Your task to perform on an android device: open wifi settings Image 0: 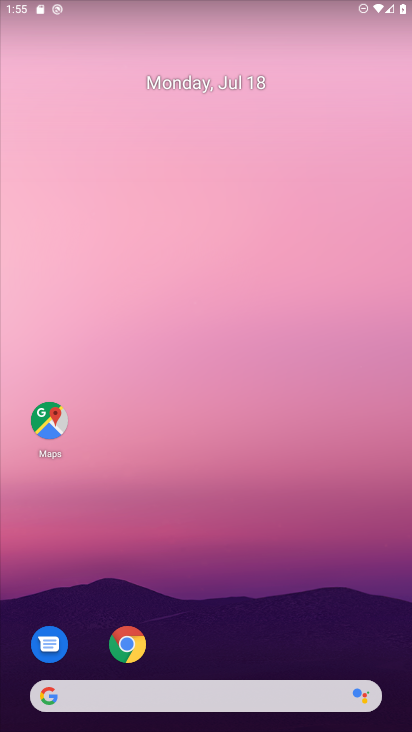
Step 0: drag from (282, 139) to (251, 525)
Your task to perform on an android device: open wifi settings Image 1: 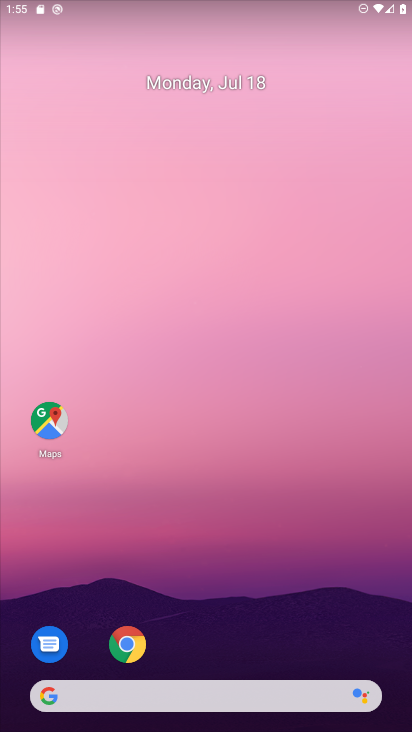
Step 1: drag from (357, 4) to (274, 651)
Your task to perform on an android device: open wifi settings Image 2: 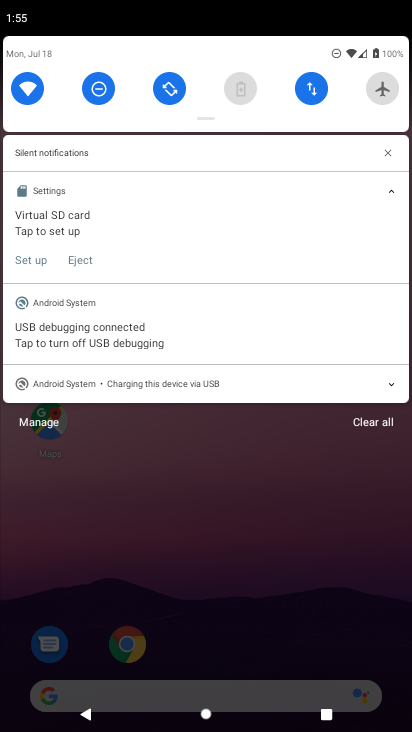
Step 2: click (24, 97)
Your task to perform on an android device: open wifi settings Image 3: 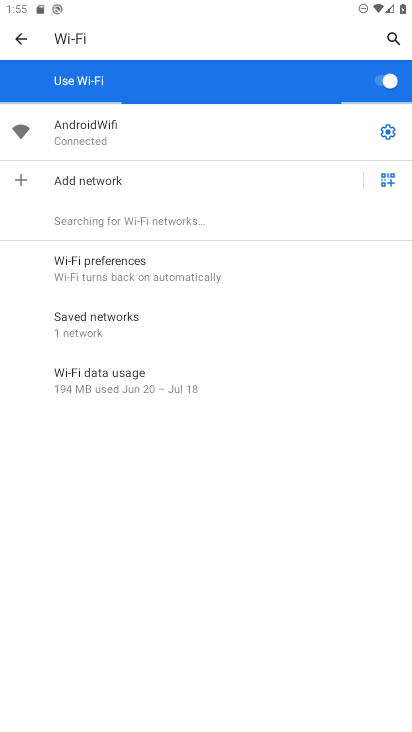
Step 3: task complete